Your task to perform on an android device: remove spam from my inbox in the gmail app Image 0: 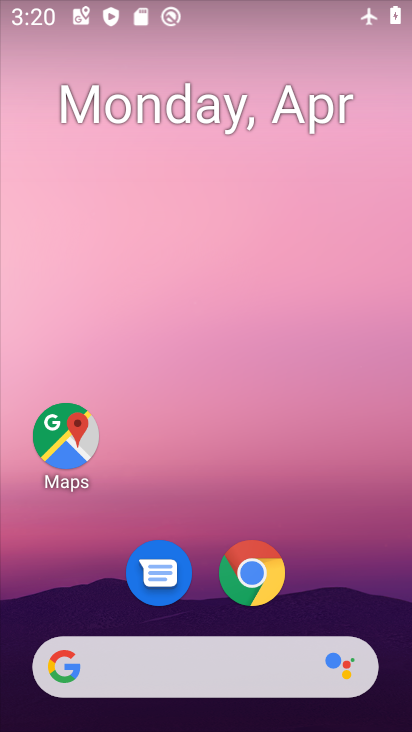
Step 0: drag from (363, 586) to (384, 95)
Your task to perform on an android device: remove spam from my inbox in the gmail app Image 1: 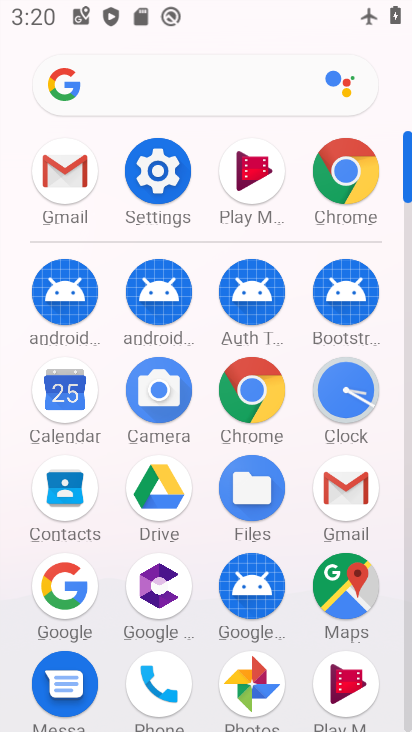
Step 1: click (327, 492)
Your task to perform on an android device: remove spam from my inbox in the gmail app Image 2: 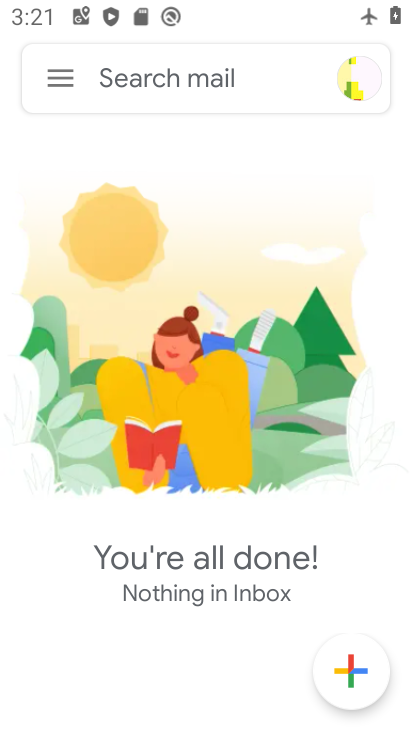
Step 2: click (66, 80)
Your task to perform on an android device: remove spam from my inbox in the gmail app Image 3: 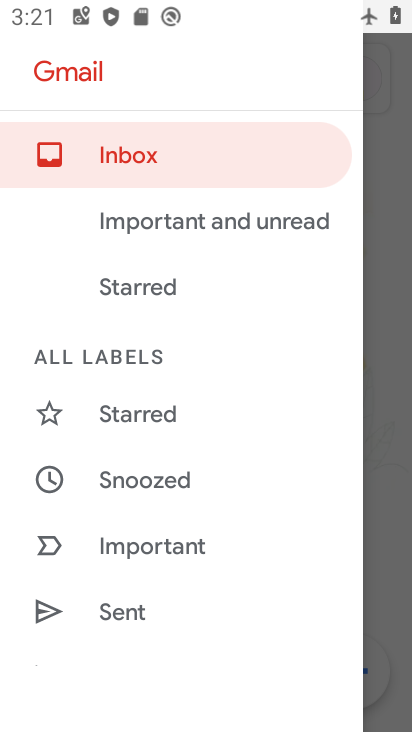
Step 3: drag from (286, 566) to (297, 461)
Your task to perform on an android device: remove spam from my inbox in the gmail app Image 4: 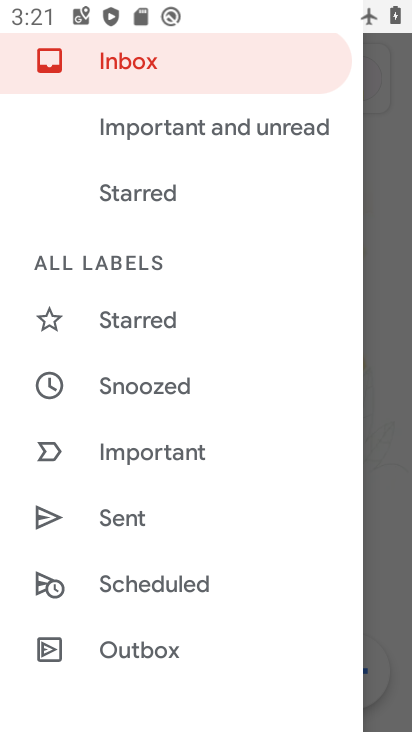
Step 4: drag from (283, 577) to (294, 494)
Your task to perform on an android device: remove spam from my inbox in the gmail app Image 5: 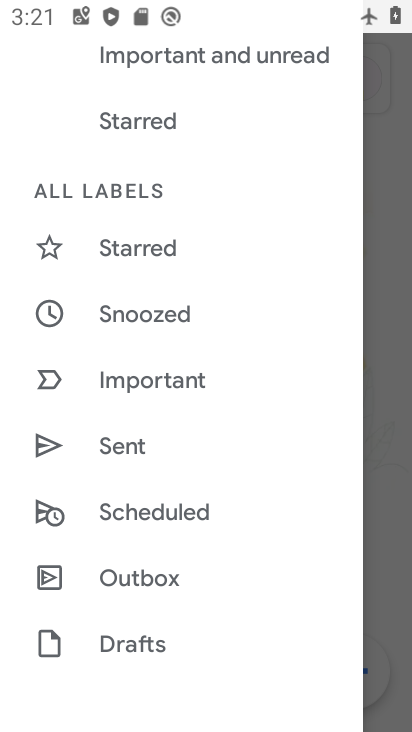
Step 5: drag from (284, 585) to (294, 477)
Your task to perform on an android device: remove spam from my inbox in the gmail app Image 6: 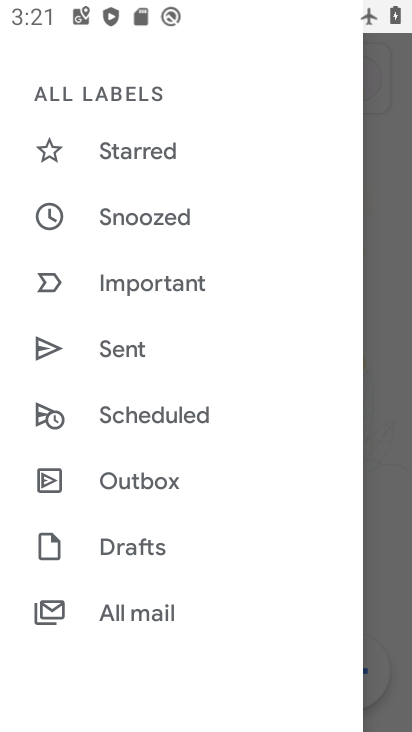
Step 6: drag from (272, 601) to (277, 509)
Your task to perform on an android device: remove spam from my inbox in the gmail app Image 7: 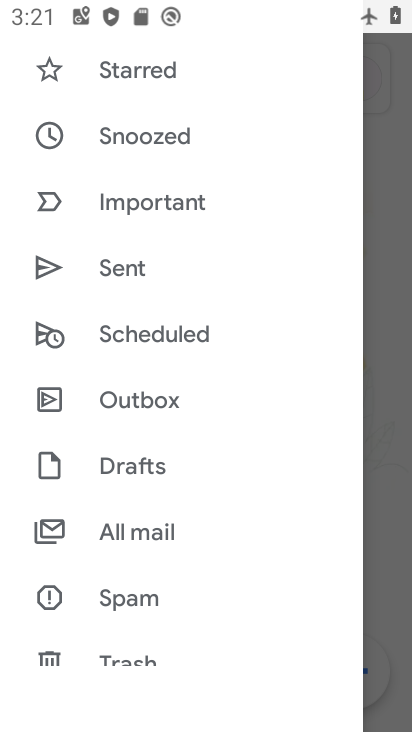
Step 7: drag from (262, 611) to (270, 524)
Your task to perform on an android device: remove spam from my inbox in the gmail app Image 8: 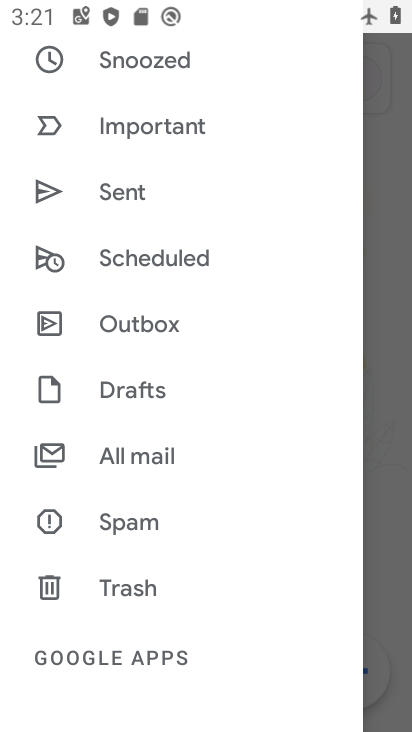
Step 8: drag from (264, 614) to (267, 480)
Your task to perform on an android device: remove spam from my inbox in the gmail app Image 9: 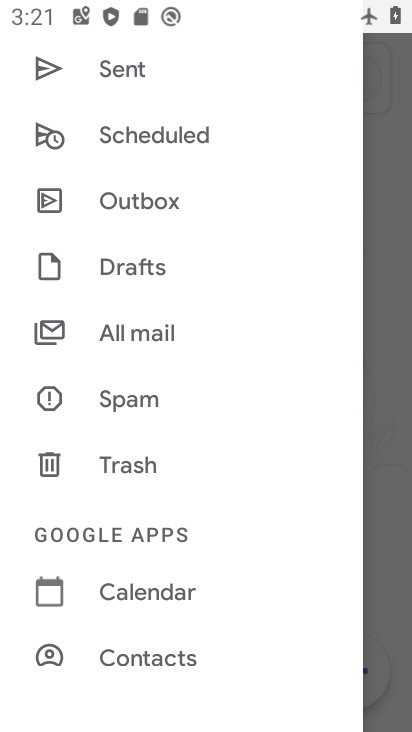
Step 9: drag from (281, 620) to (297, 434)
Your task to perform on an android device: remove spam from my inbox in the gmail app Image 10: 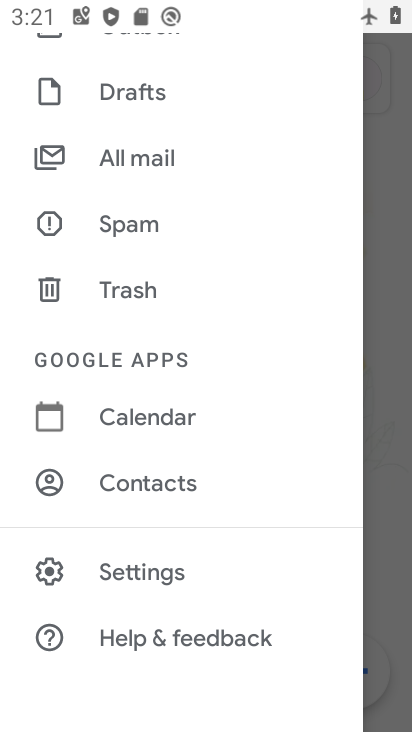
Step 10: drag from (270, 576) to (281, 462)
Your task to perform on an android device: remove spam from my inbox in the gmail app Image 11: 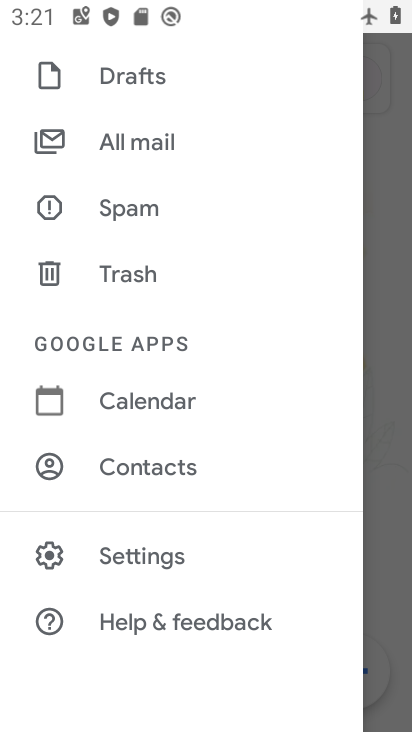
Step 11: click (165, 202)
Your task to perform on an android device: remove spam from my inbox in the gmail app Image 12: 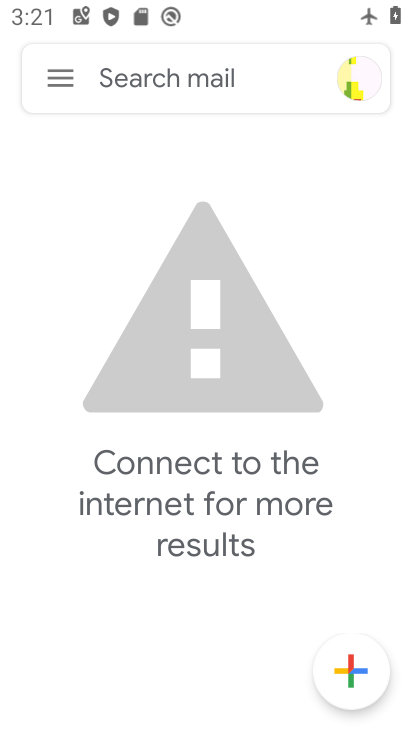
Step 12: task complete